Your task to perform on an android device: Open my contact list Image 0: 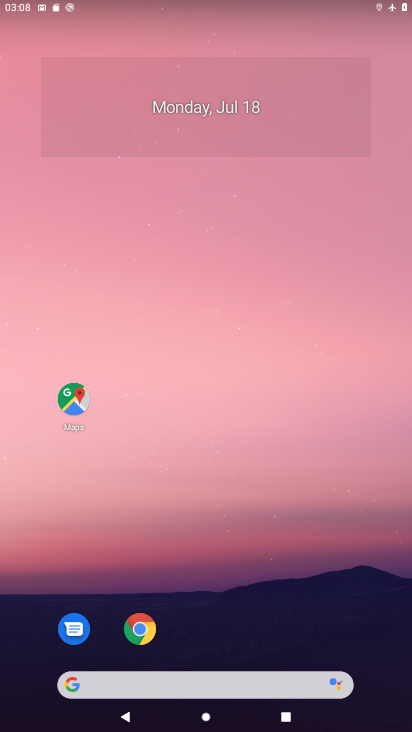
Step 0: drag from (355, 570) to (365, 68)
Your task to perform on an android device: Open my contact list Image 1: 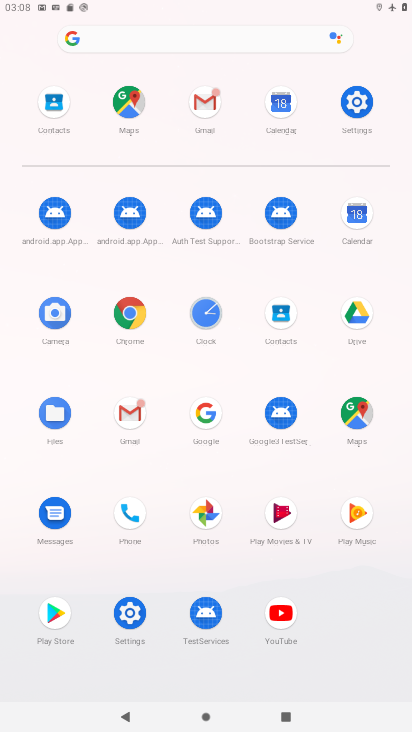
Step 1: click (279, 309)
Your task to perform on an android device: Open my contact list Image 2: 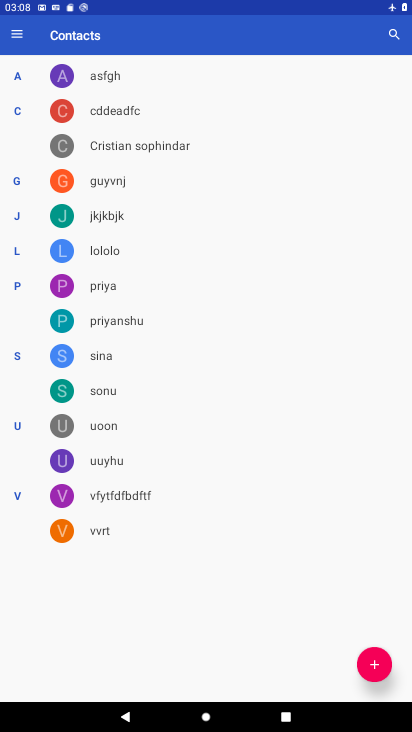
Step 2: task complete